Your task to perform on an android device: turn on showing notifications on the lock screen Image 0: 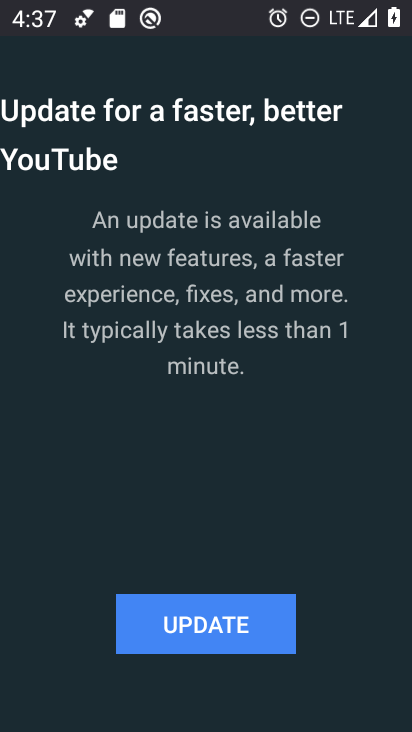
Step 0: press home button
Your task to perform on an android device: turn on showing notifications on the lock screen Image 1: 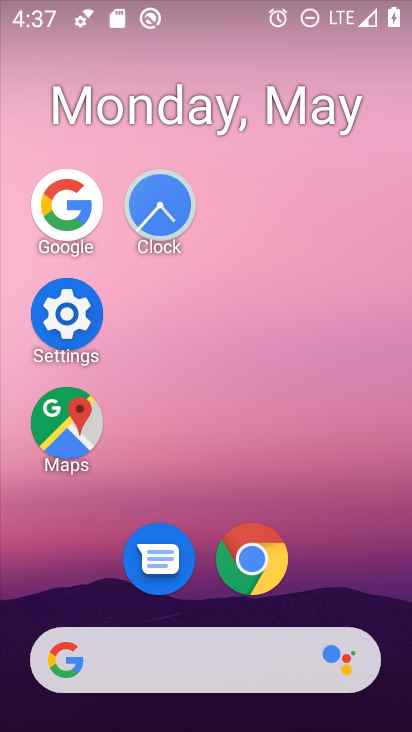
Step 1: click (77, 318)
Your task to perform on an android device: turn on showing notifications on the lock screen Image 2: 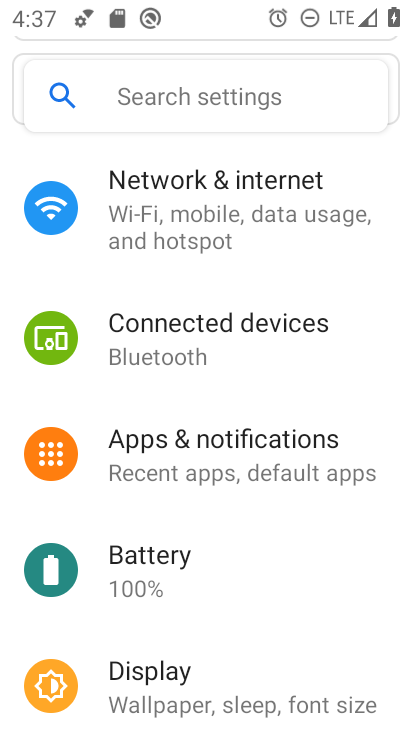
Step 2: click (280, 430)
Your task to perform on an android device: turn on showing notifications on the lock screen Image 3: 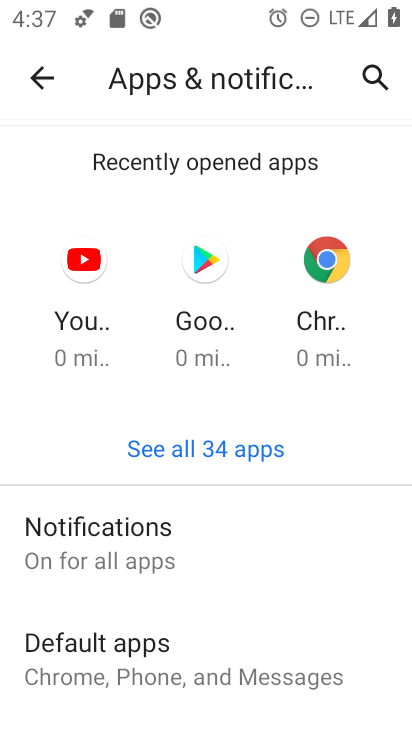
Step 3: click (206, 549)
Your task to perform on an android device: turn on showing notifications on the lock screen Image 4: 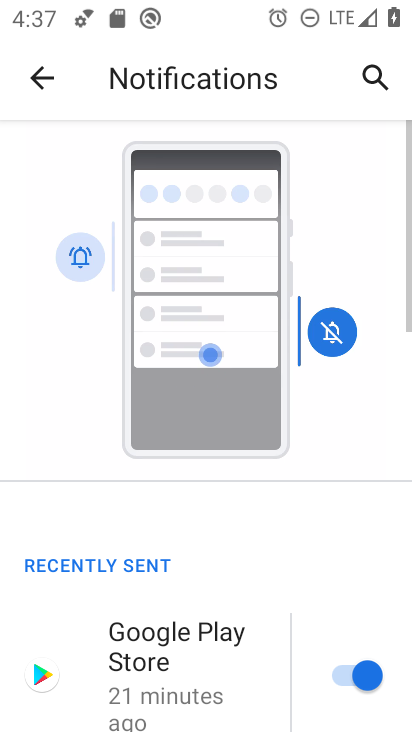
Step 4: drag from (210, 593) to (259, 143)
Your task to perform on an android device: turn on showing notifications on the lock screen Image 5: 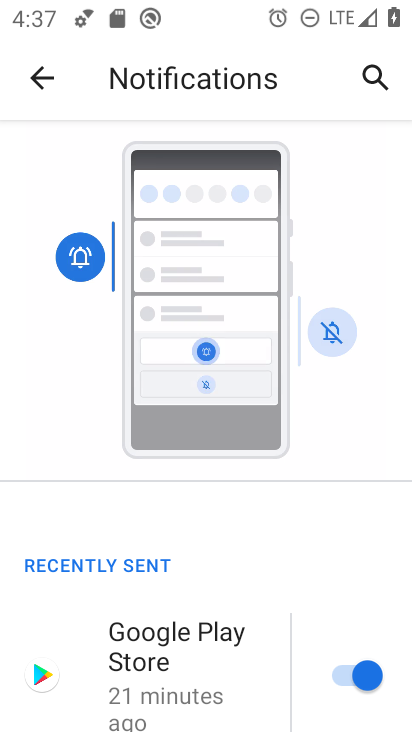
Step 5: drag from (244, 559) to (286, 140)
Your task to perform on an android device: turn on showing notifications on the lock screen Image 6: 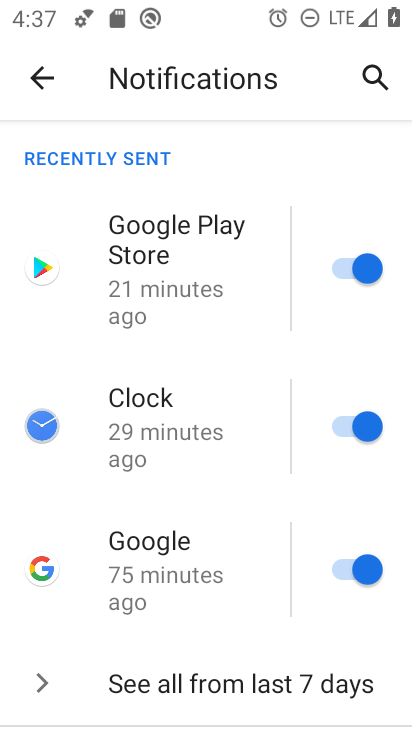
Step 6: drag from (229, 586) to (258, 145)
Your task to perform on an android device: turn on showing notifications on the lock screen Image 7: 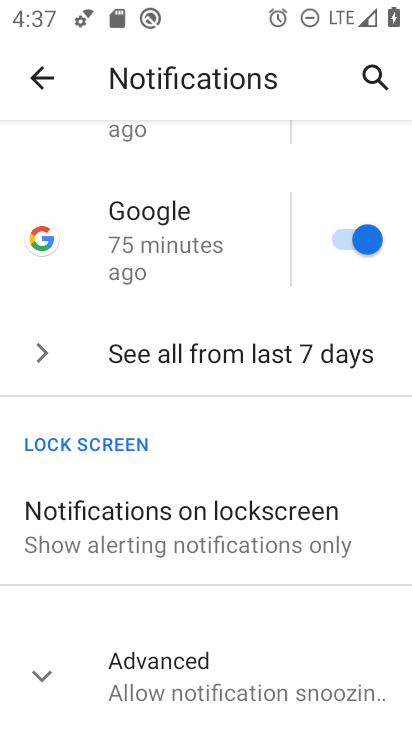
Step 7: click (180, 500)
Your task to perform on an android device: turn on showing notifications on the lock screen Image 8: 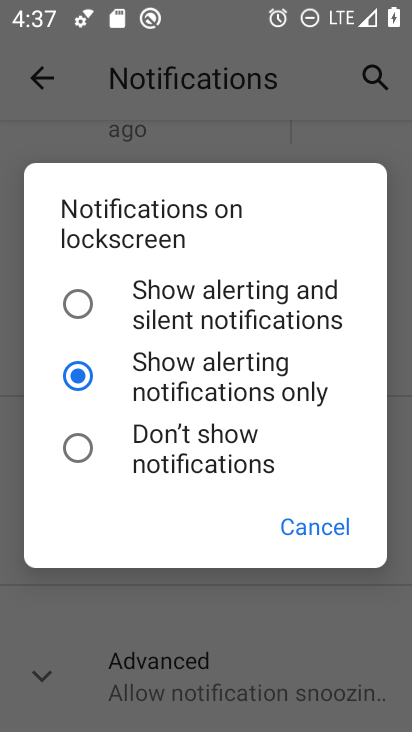
Step 8: click (214, 284)
Your task to perform on an android device: turn on showing notifications on the lock screen Image 9: 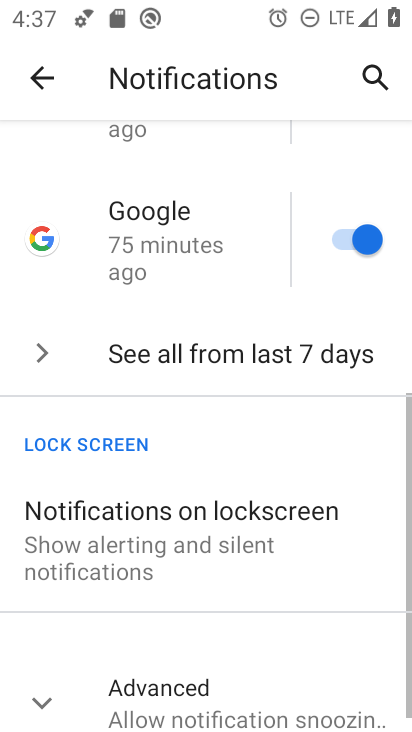
Step 9: task complete